Your task to perform on an android device: change the clock display to digital Image 0: 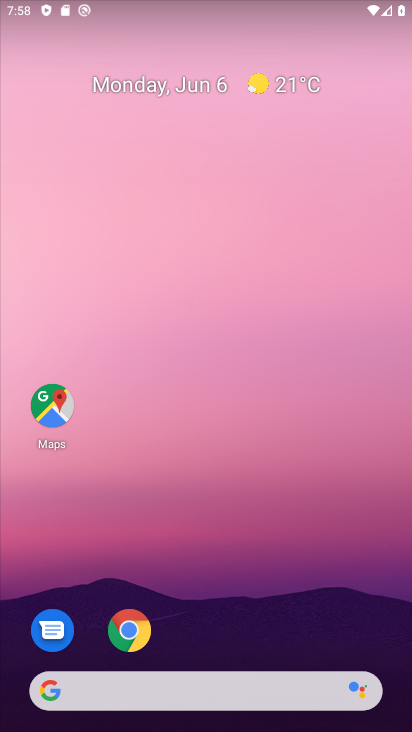
Step 0: drag from (288, 598) to (222, 31)
Your task to perform on an android device: change the clock display to digital Image 1: 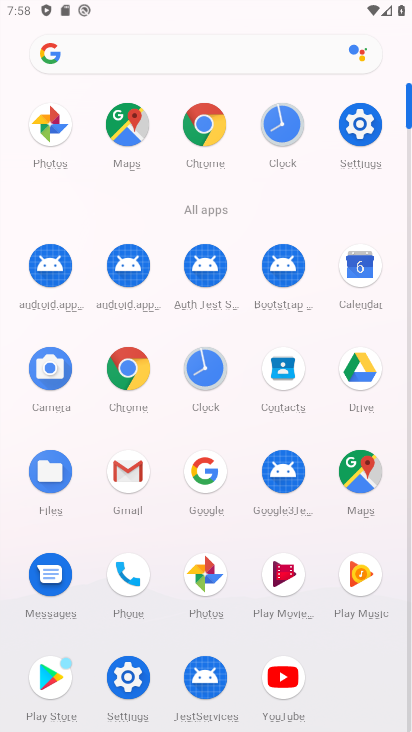
Step 1: click (206, 369)
Your task to perform on an android device: change the clock display to digital Image 2: 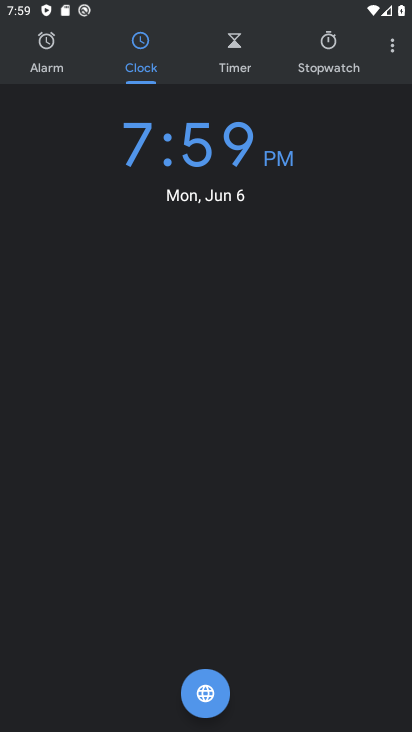
Step 2: click (391, 45)
Your task to perform on an android device: change the clock display to digital Image 3: 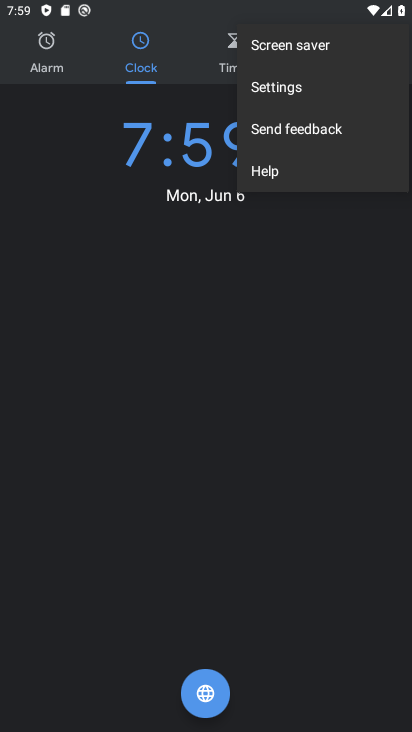
Step 3: click (276, 95)
Your task to perform on an android device: change the clock display to digital Image 4: 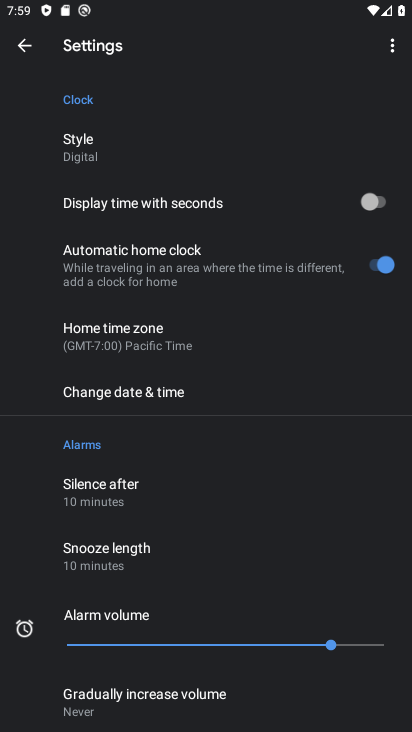
Step 4: click (126, 146)
Your task to perform on an android device: change the clock display to digital Image 5: 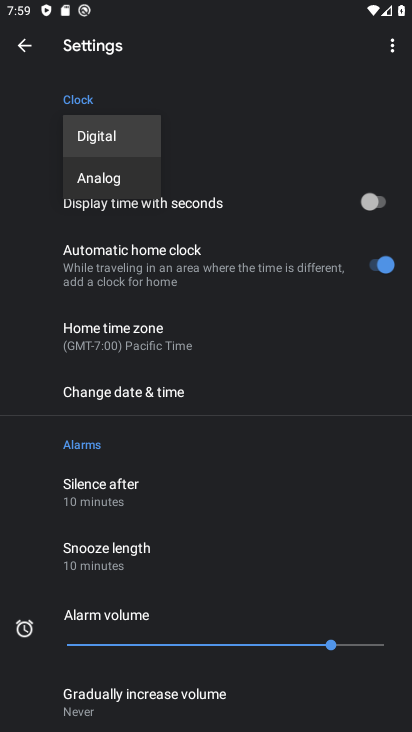
Step 5: click (113, 137)
Your task to perform on an android device: change the clock display to digital Image 6: 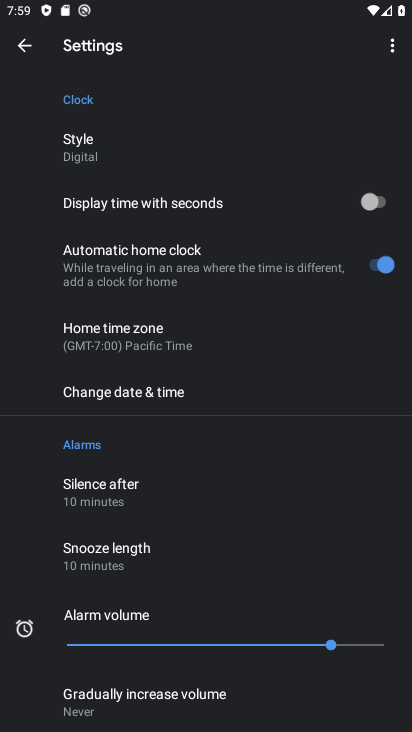
Step 6: task complete